Your task to perform on an android device: Open Reddit.com Image 0: 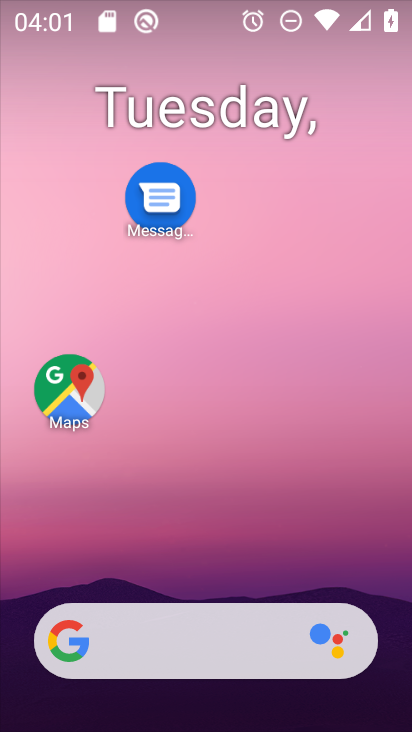
Step 0: drag from (219, 515) to (244, 226)
Your task to perform on an android device: Open Reddit.com Image 1: 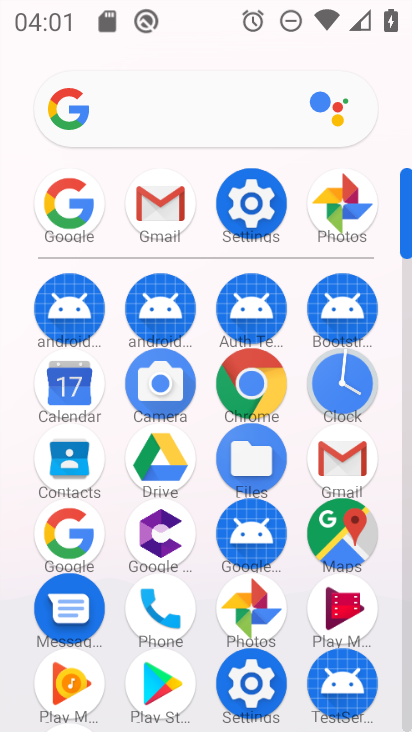
Step 1: click (248, 393)
Your task to perform on an android device: Open Reddit.com Image 2: 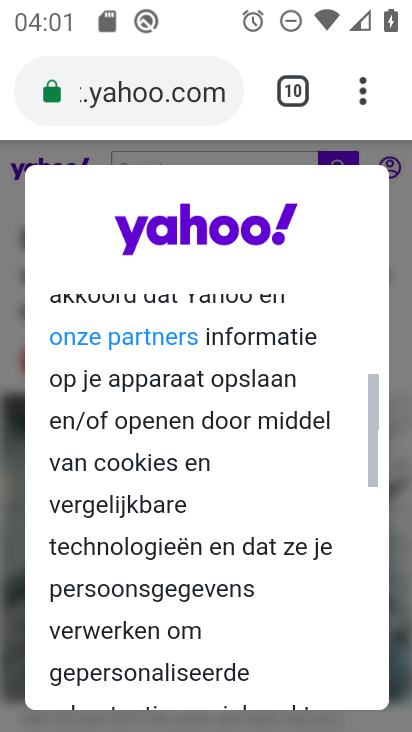
Step 2: click (286, 91)
Your task to perform on an android device: Open Reddit.com Image 3: 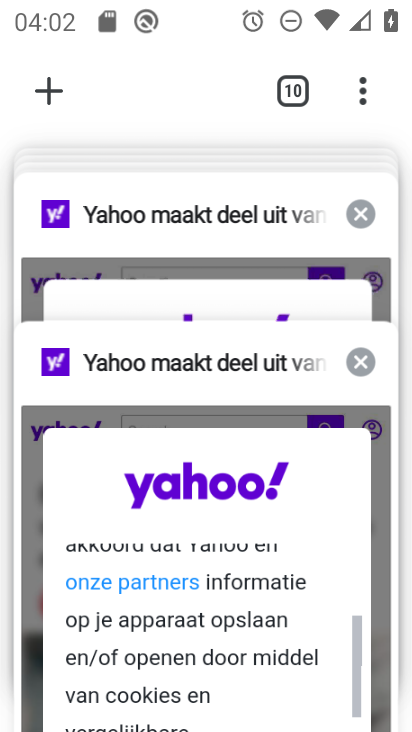
Step 3: click (55, 76)
Your task to perform on an android device: Open Reddit.com Image 4: 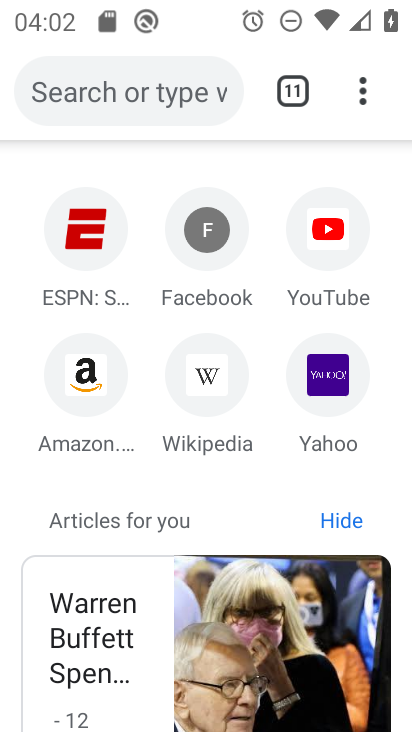
Step 4: type "Reddit.com"
Your task to perform on an android device: Open Reddit.com Image 5: 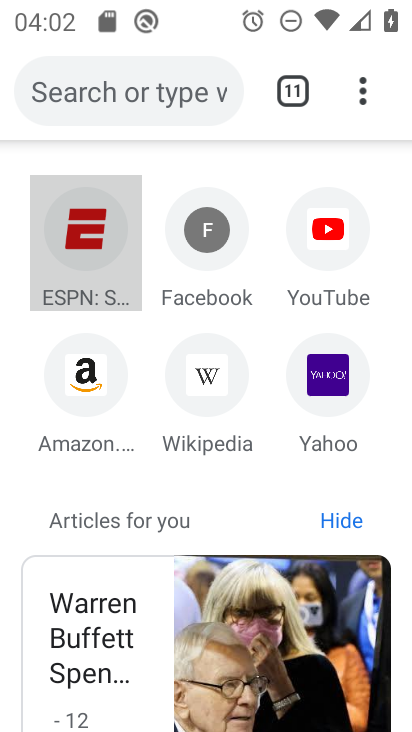
Step 5: click (129, 84)
Your task to perform on an android device: Open Reddit.com Image 6: 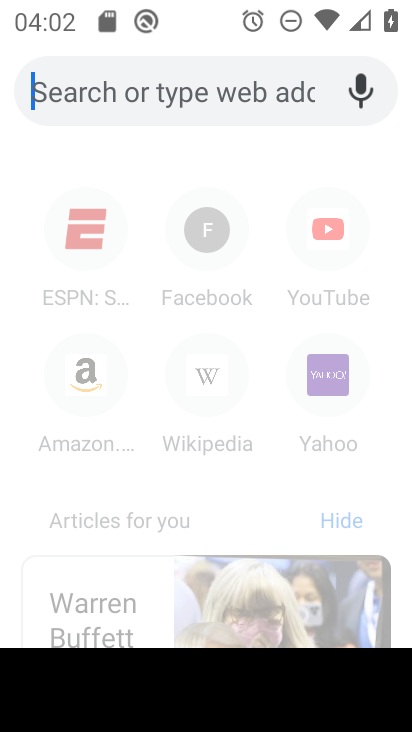
Step 6: type "Reddit.com"
Your task to perform on an android device: Open Reddit.com Image 7: 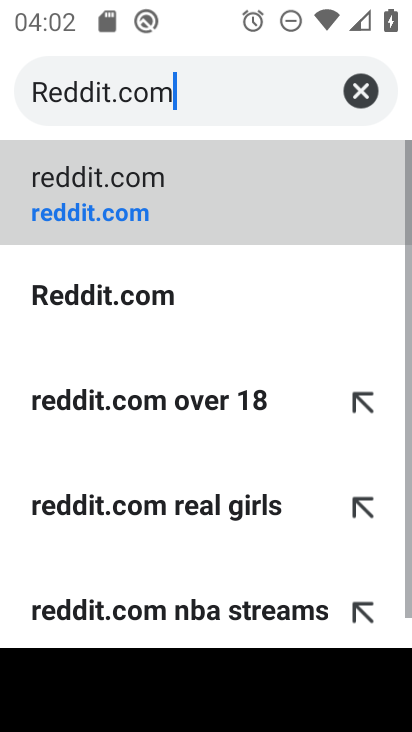
Step 7: click (227, 169)
Your task to perform on an android device: Open Reddit.com Image 8: 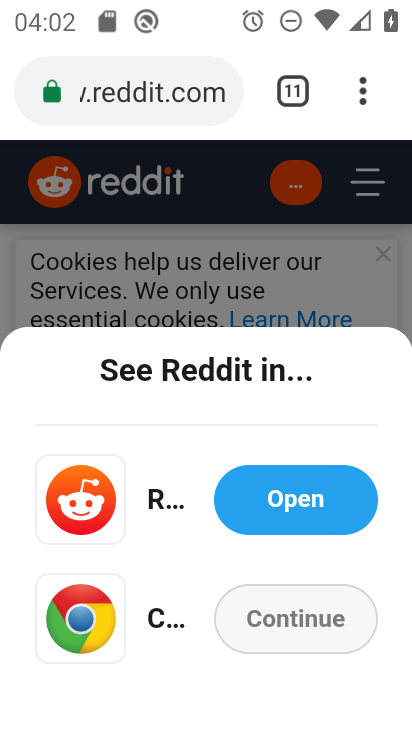
Step 8: click (309, 602)
Your task to perform on an android device: Open Reddit.com Image 9: 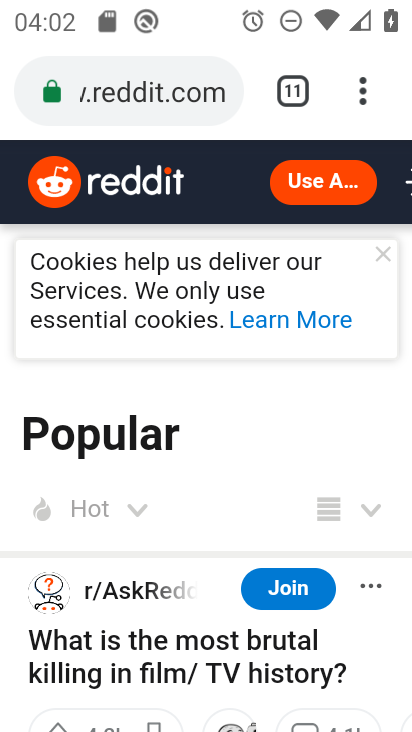
Step 9: task complete